Your task to perform on an android device: read, delete, or share a saved page in the chrome app Image 0: 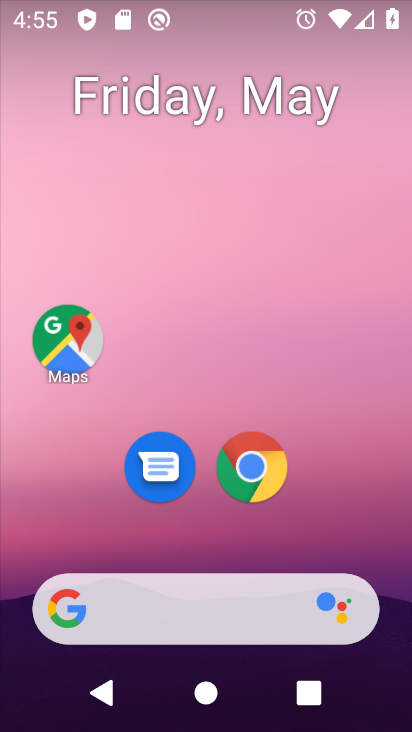
Step 0: click (254, 464)
Your task to perform on an android device: read, delete, or share a saved page in the chrome app Image 1: 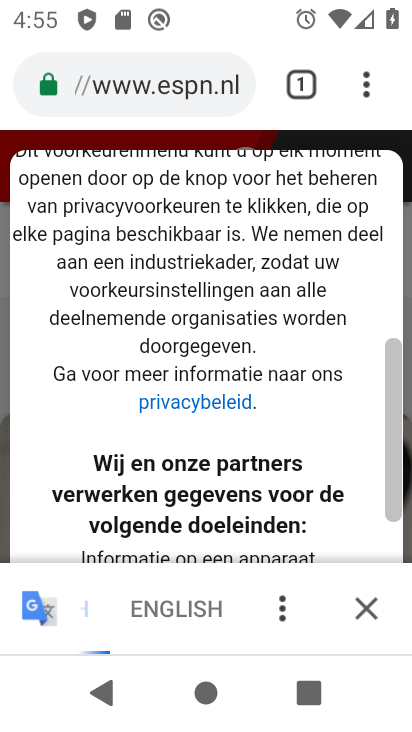
Step 1: task complete